Your task to perform on an android device: change the clock display to show seconds Image 0: 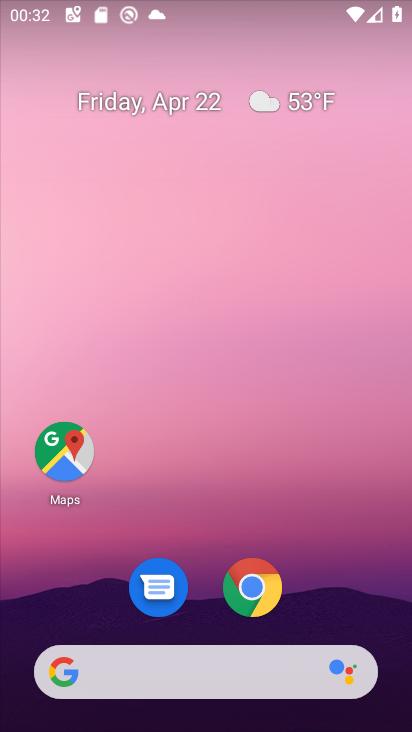
Step 0: drag from (325, 634) to (327, 232)
Your task to perform on an android device: change the clock display to show seconds Image 1: 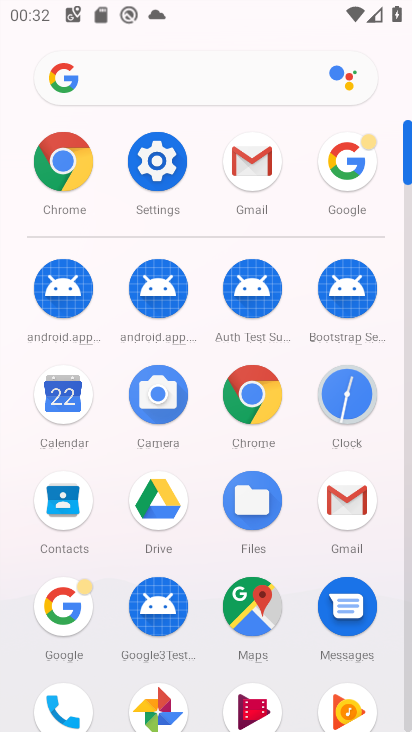
Step 1: drag from (195, 621) to (207, 400)
Your task to perform on an android device: change the clock display to show seconds Image 2: 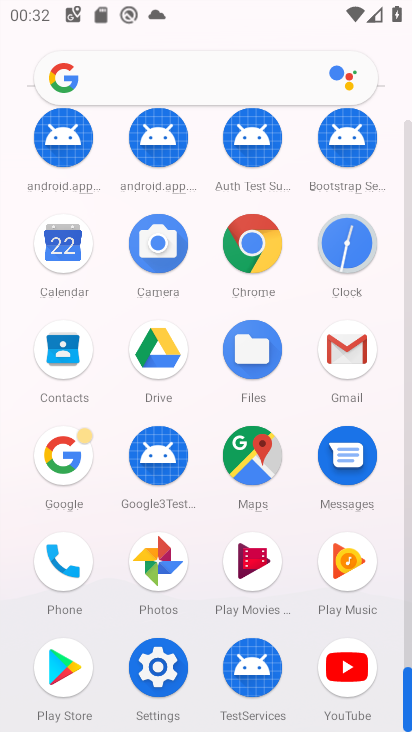
Step 2: drag from (306, 391) to (277, 595)
Your task to perform on an android device: change the clock display to show seconds Image 3: 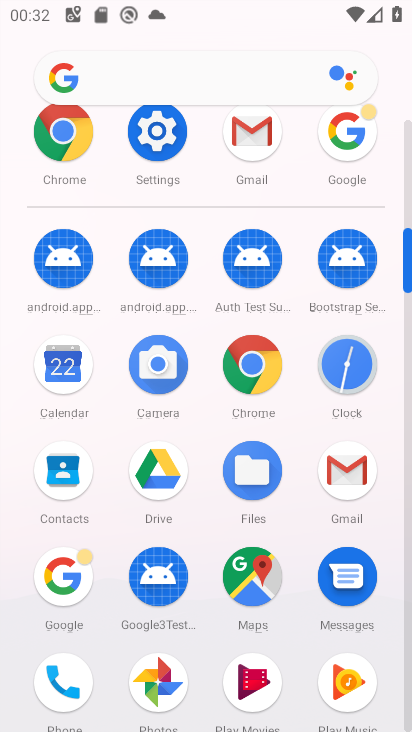
Step 3: click (302, 365)
Your task to perform on an android device: change the clock display to show seconds Image 4: 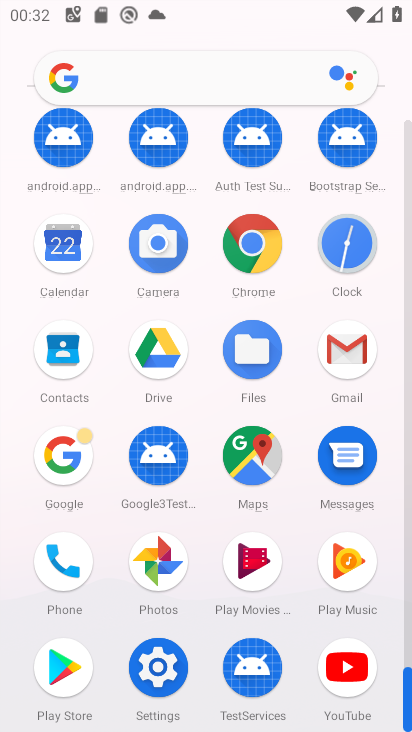
Step 4: click (351, 256)
Your task to perform on an android device: change the clock display to show seconds Image 5: 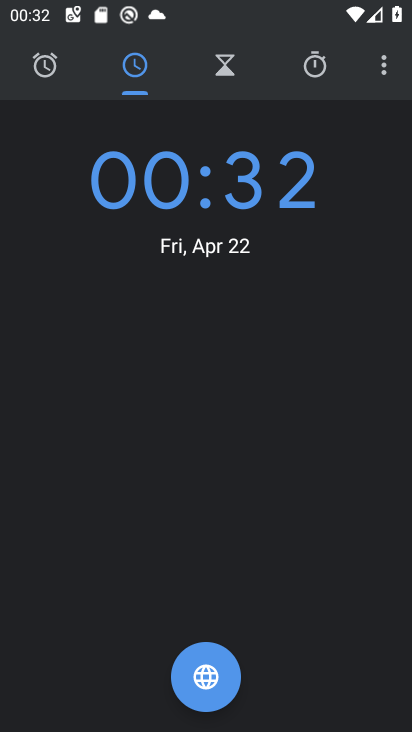
Step 5: drag from (386, 72) to (349, 117)
Your task to perform on an android device: change the clock display to show seconds Image 6: 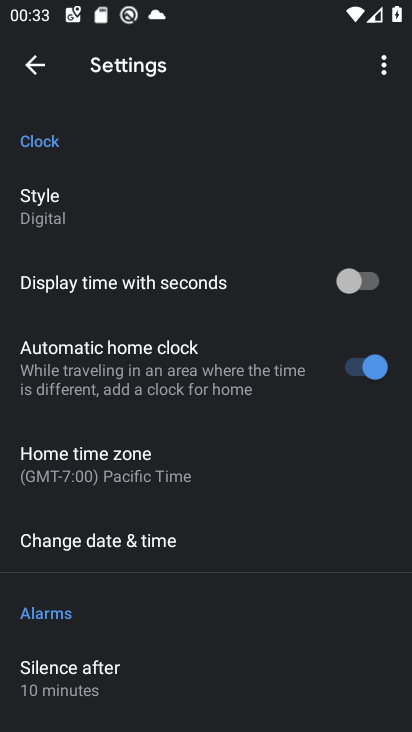
Step 6: click (352, 277)
Your task to perform on an android device: change the clock display to show seconds Image 7: 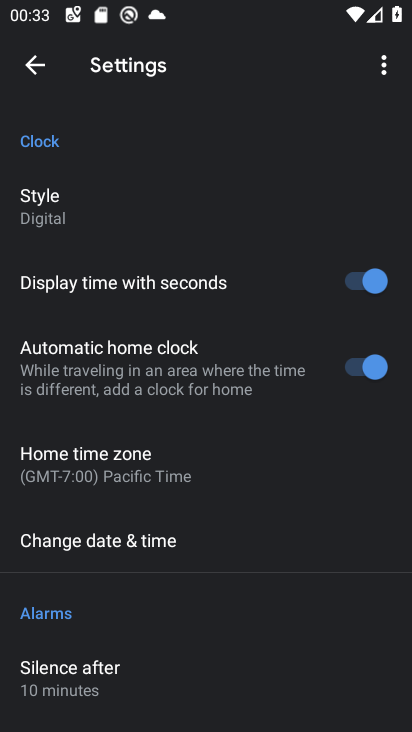
Step 7: task complete